Your task to perform on an android device: change the clock style Image 0: 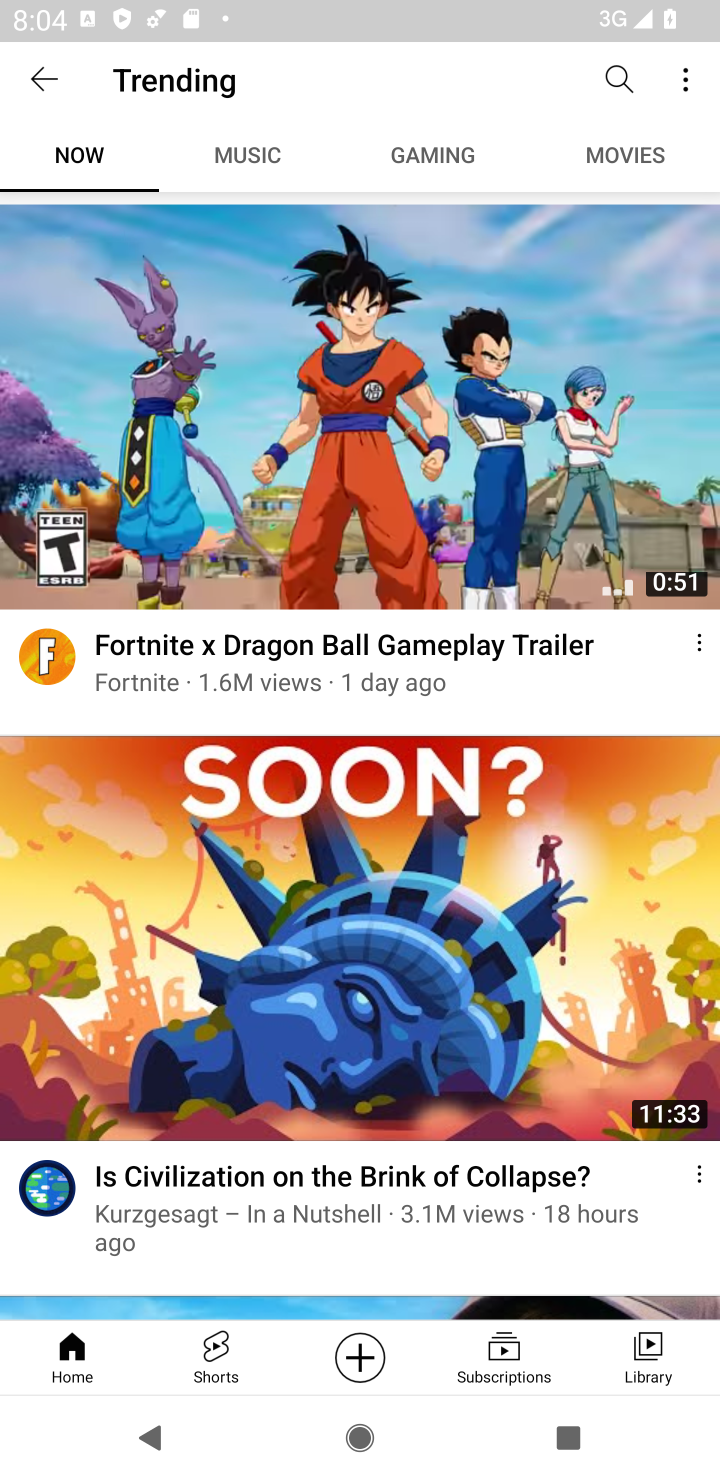
Step 0: press home button
Your task to perform on an android device: change the clock style Image 1: 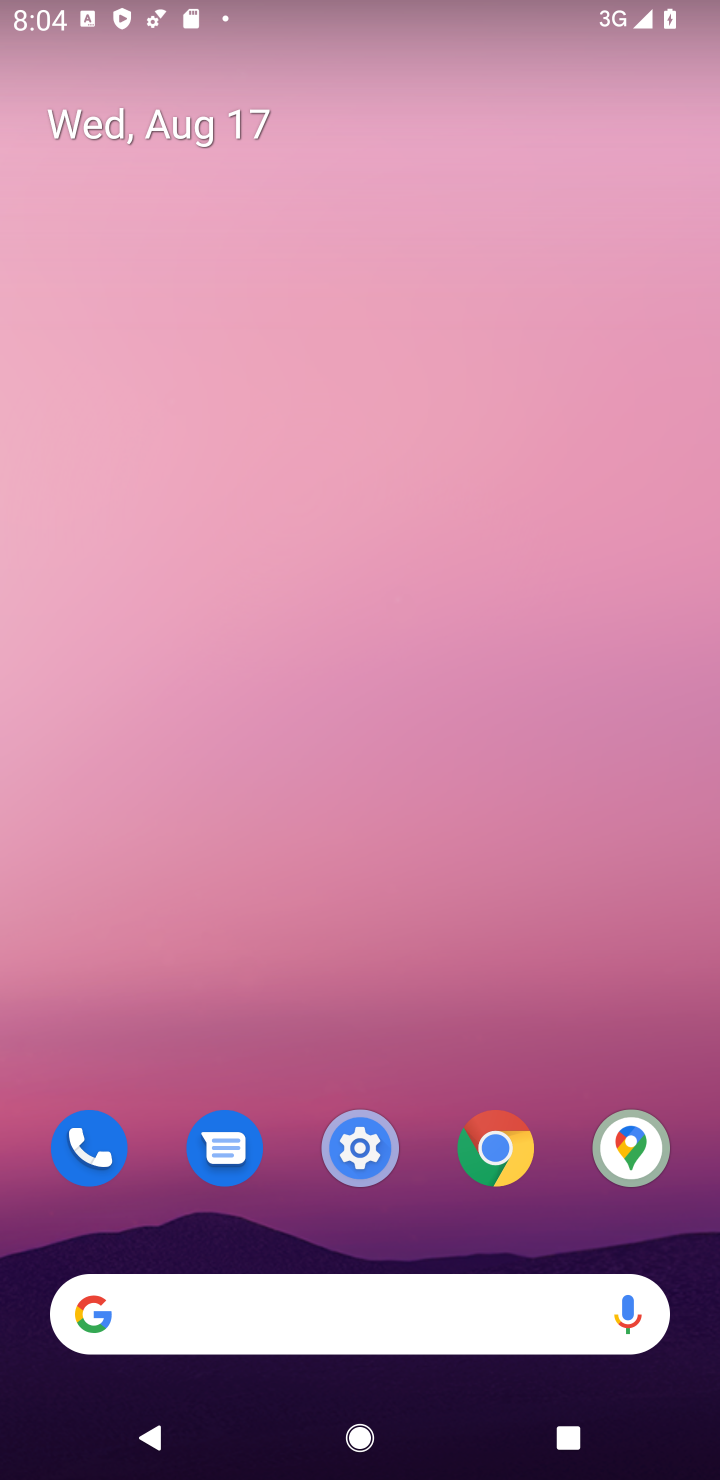
Step 1: drag from (572, 1216) to (549, 455)
Your task to perform on an android device: change the clock style Image 2: 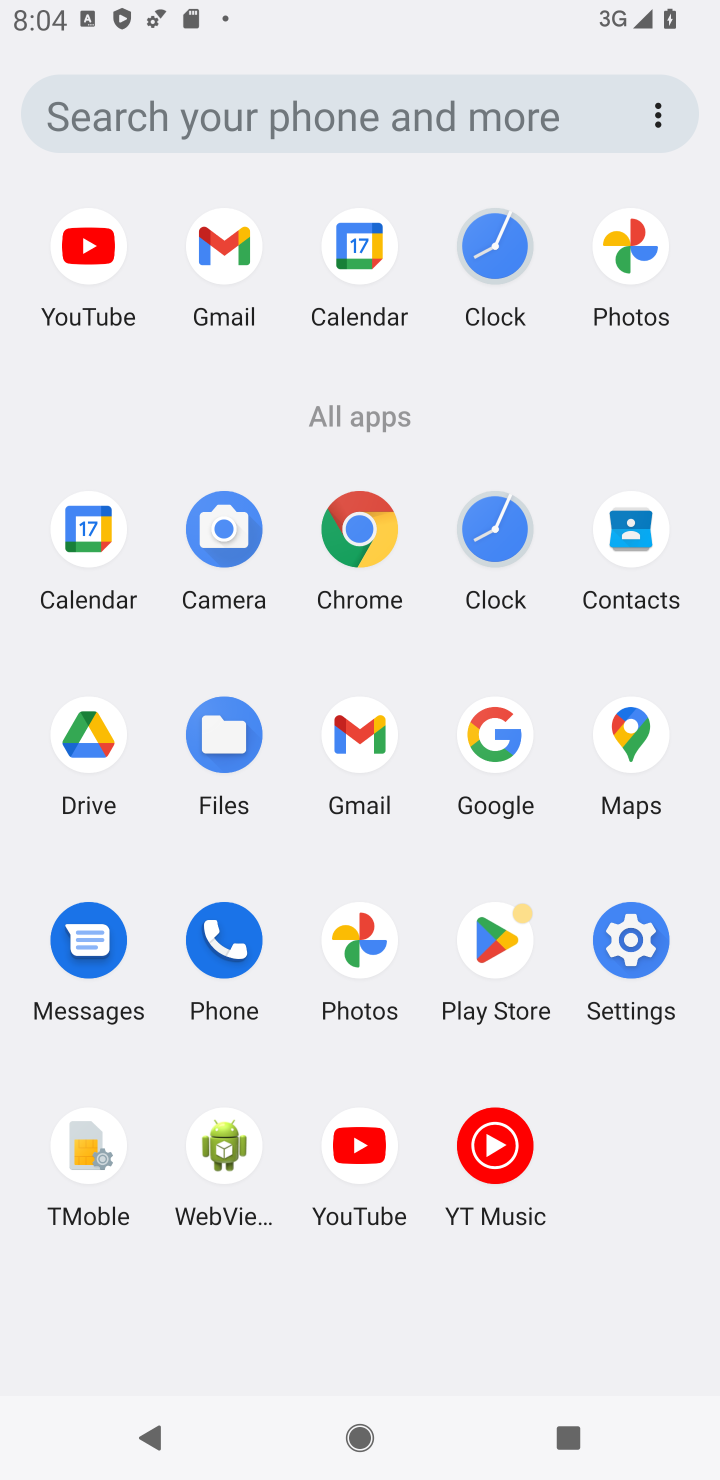
Step 2: click (498, 530)
Your task to perform on an android device: change the clock style Image 3: 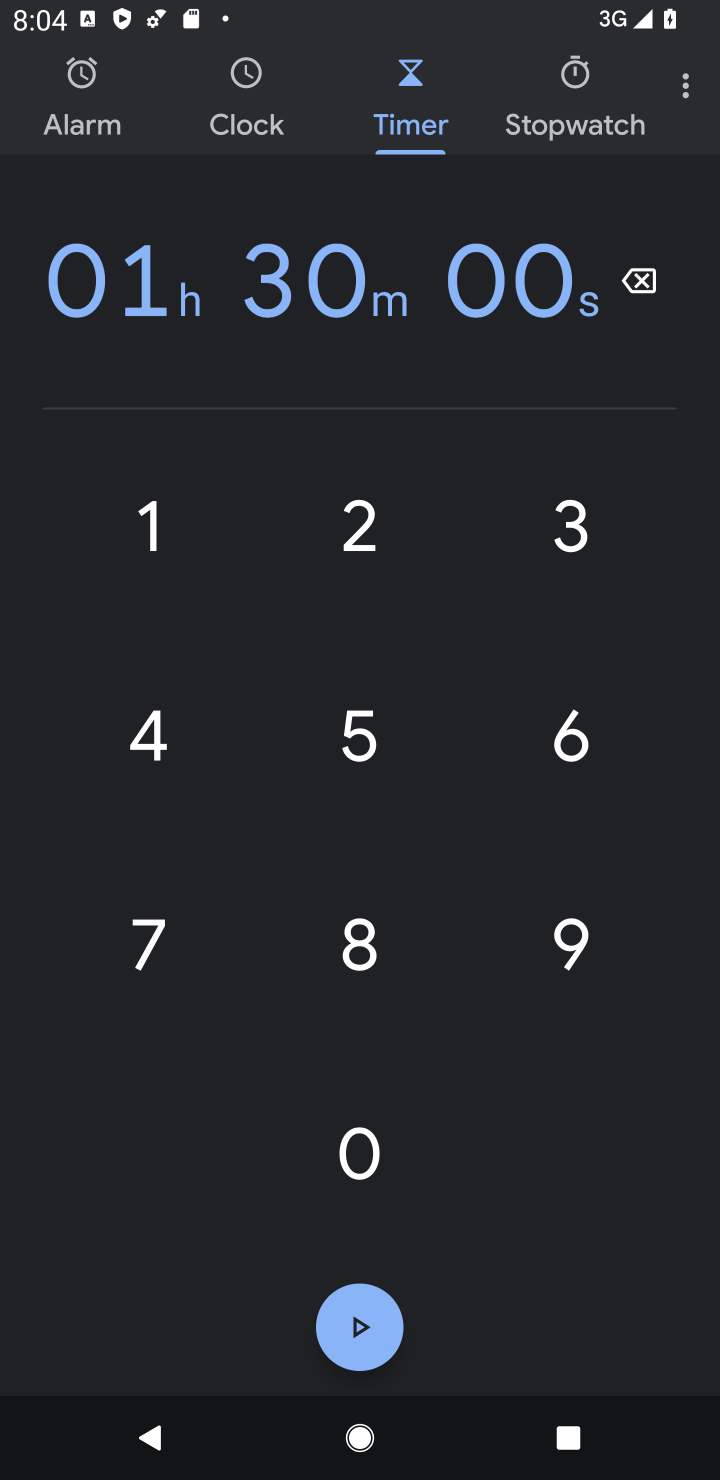
Step 3: click (685, 99)
Your task to perform on an android device: change the clock style Image 4: 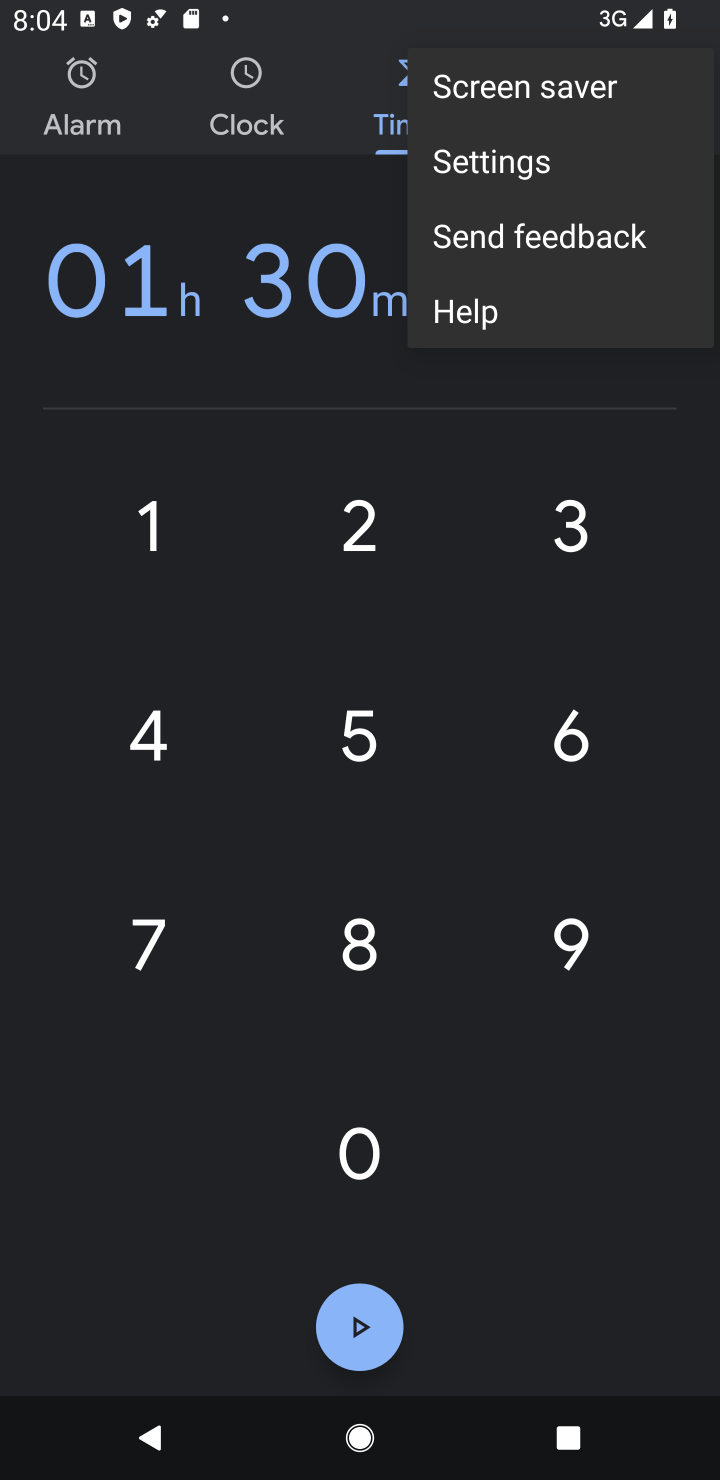
Step 4: click (487, 166)
Your task to perform on an android device: change the clock style Image 5: 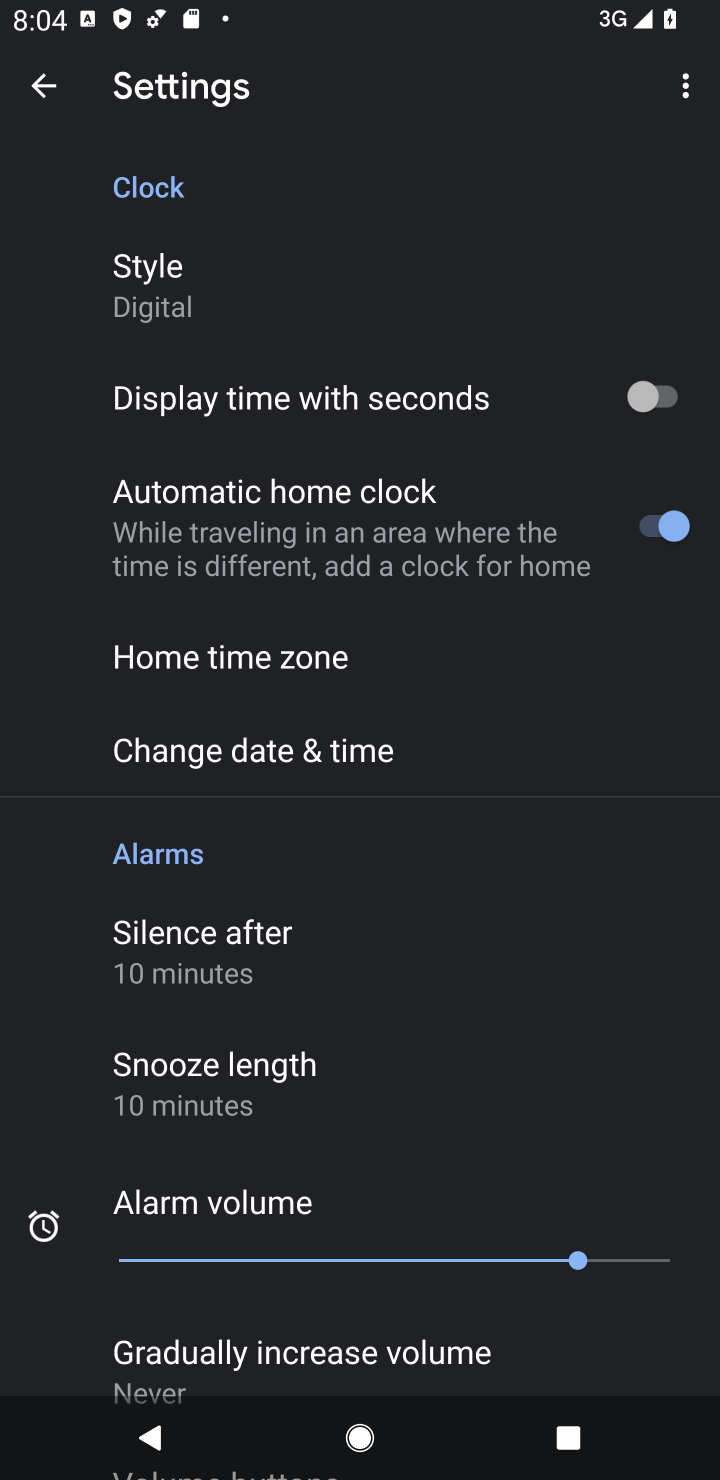
Step 5: click (163, 294)
Your task to perform on an android device: change the clock style Image 6: 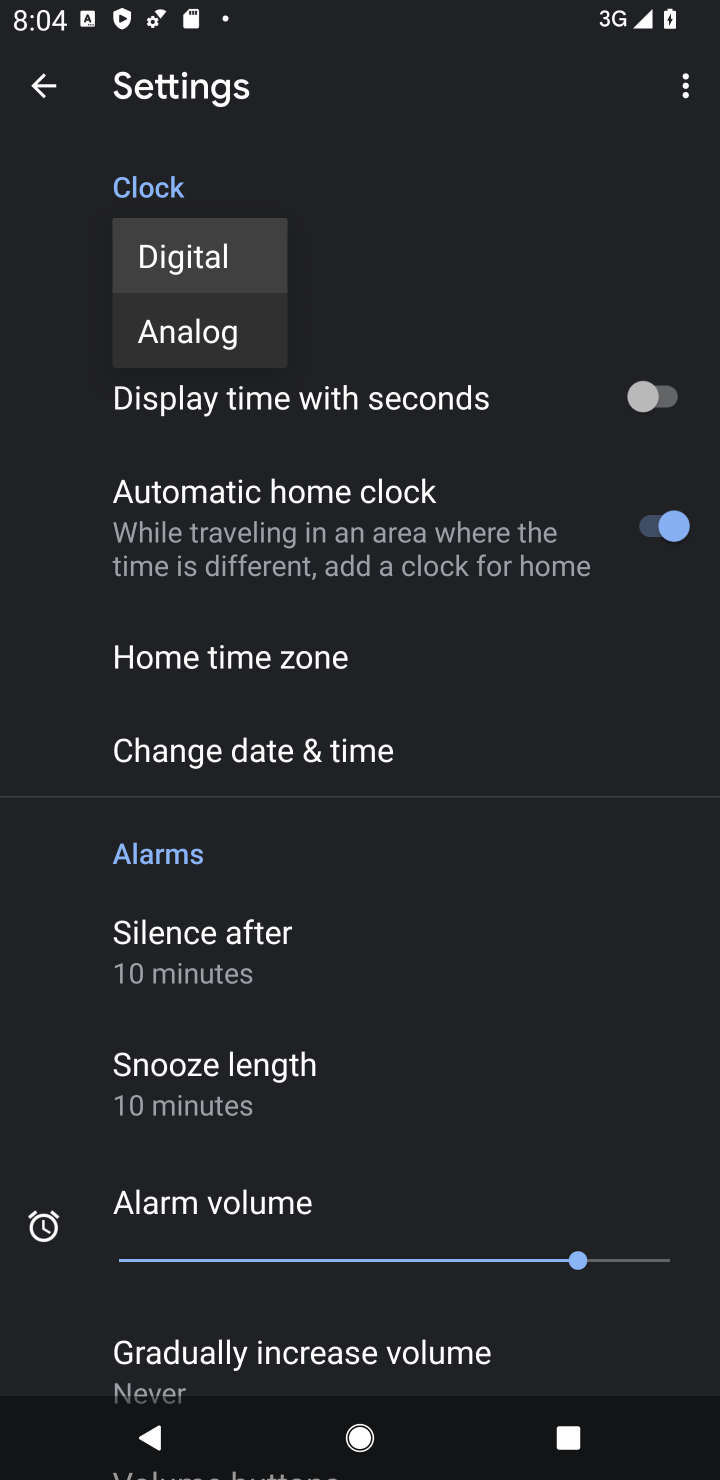
Step 6: click (205, 334)
Your task to perform on an android device: change the clock style Image 7: 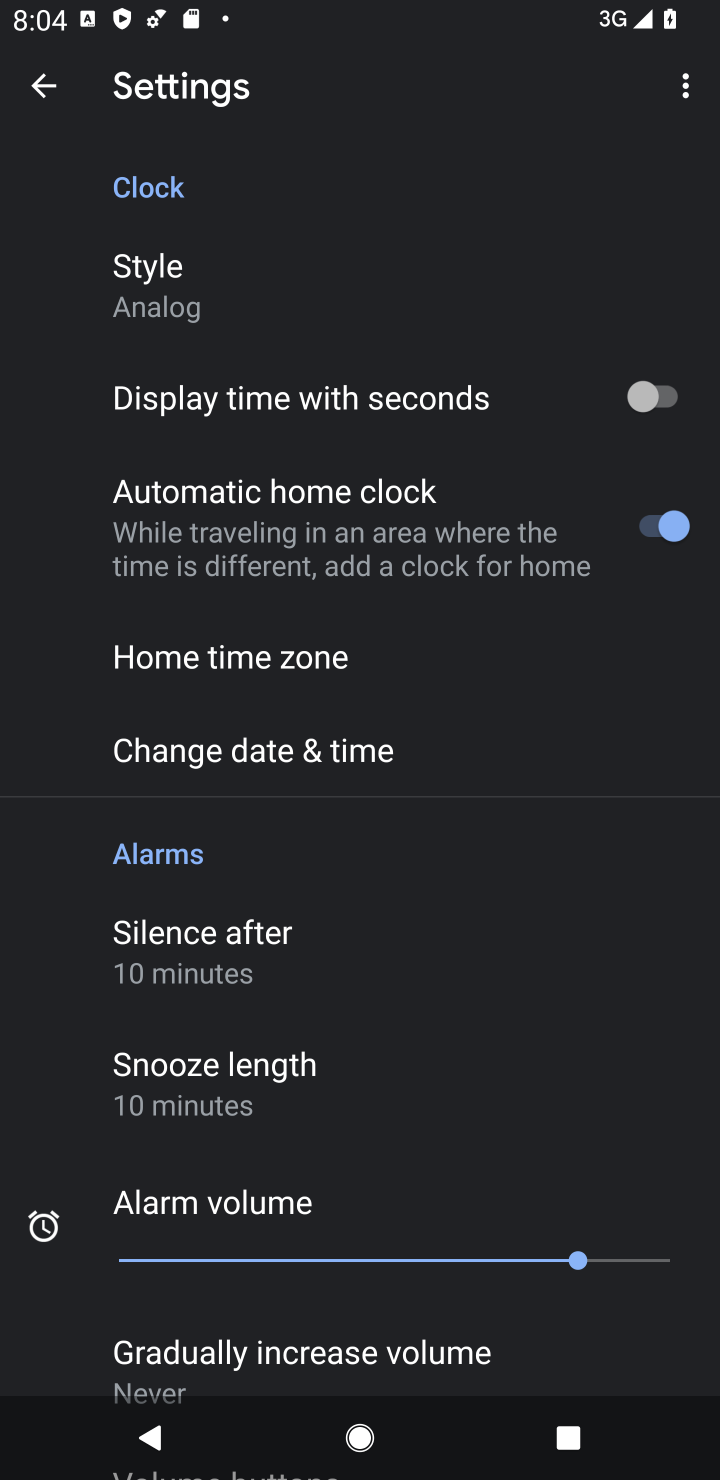
Step 7: task complete